Your task to perform on an android device: turn notification dots on Image 0: 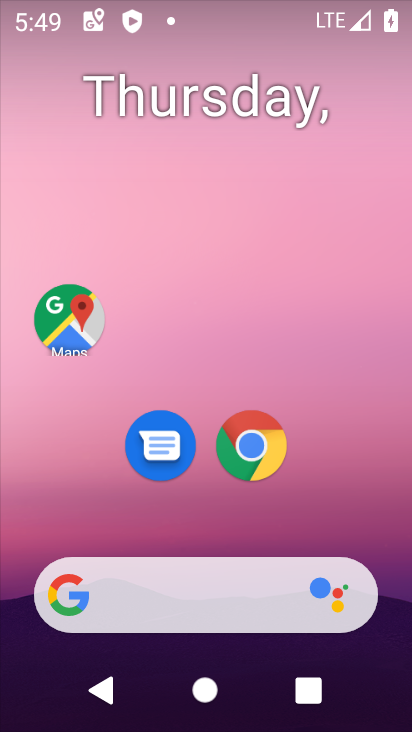
Step 0: drag from (283, 466) to (286, 105)
Your task to perform on an android device: turn notification dots on Image 1: 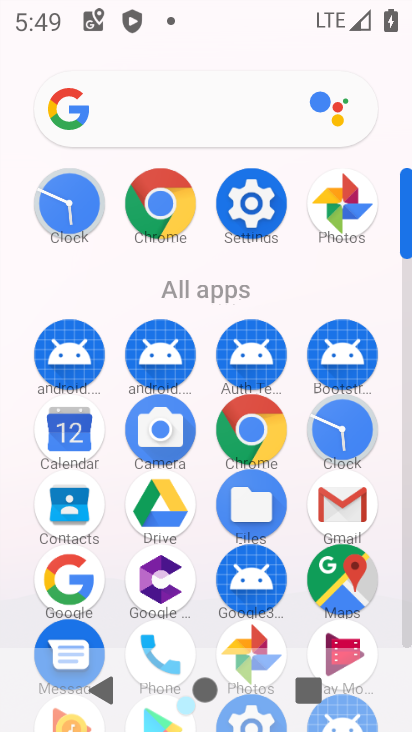
Step 1: click (243, 200)
Your task to perform on an android device: turn notification dots on Image 2: 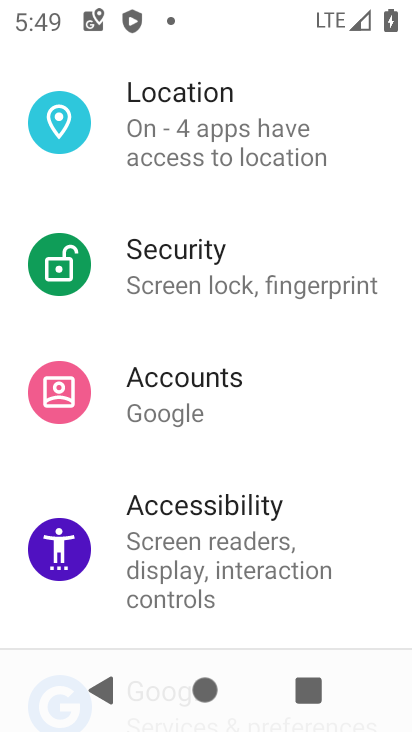
Step 2: drag from (354, 132) to (338, 591)
Your task to perform on an android device: turn notification dots on Image 3: 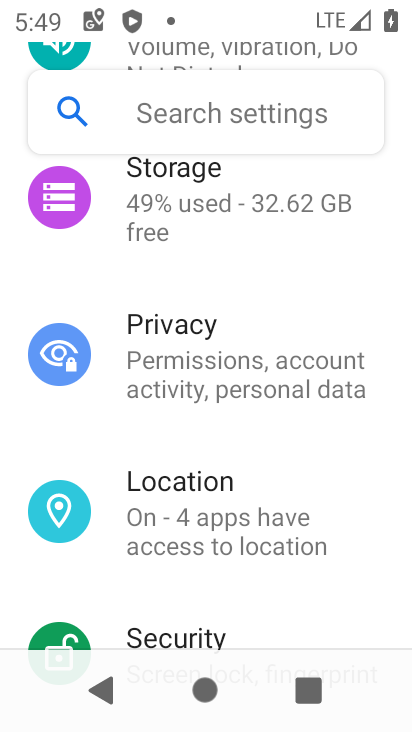
Step 3: drag from (371, 176) to (336, 585)
Your task to perform on an android device: turn notification dots on Image 4: 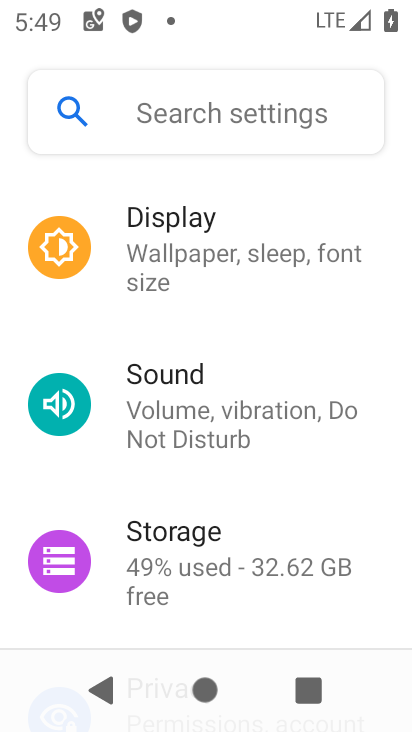
Step 4: drag from (372, 191) to (352, 595)
Your task to perform on an android device: turn notification dots on Image 5: 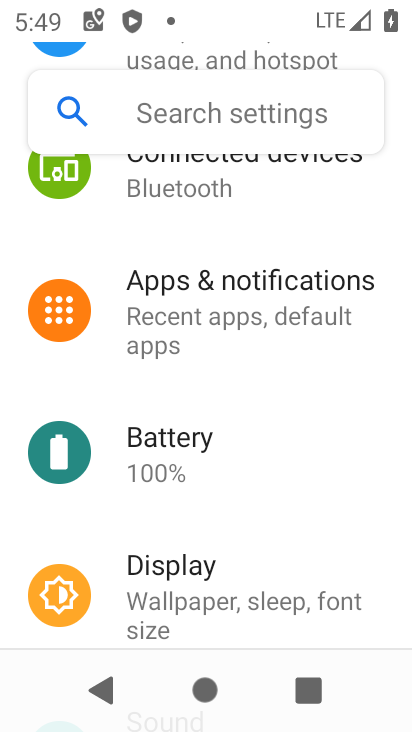
Step 5: click (305, 296)
Your task to perform on an android device: turn notification dots on Image 6: 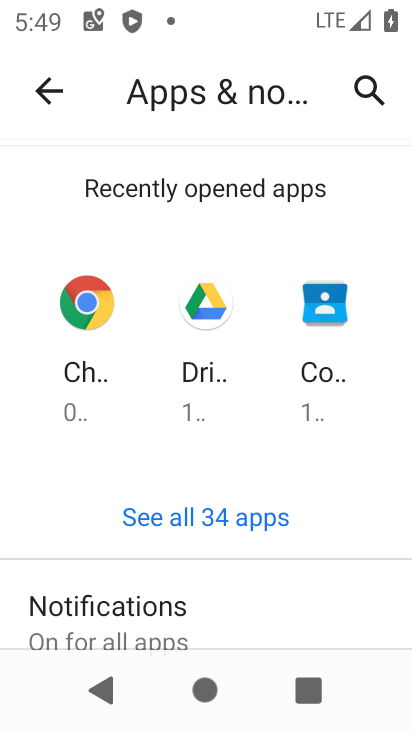
Step 6: click (167, 611)
Your task to perform on an android device: turn notification dots on Image 7: 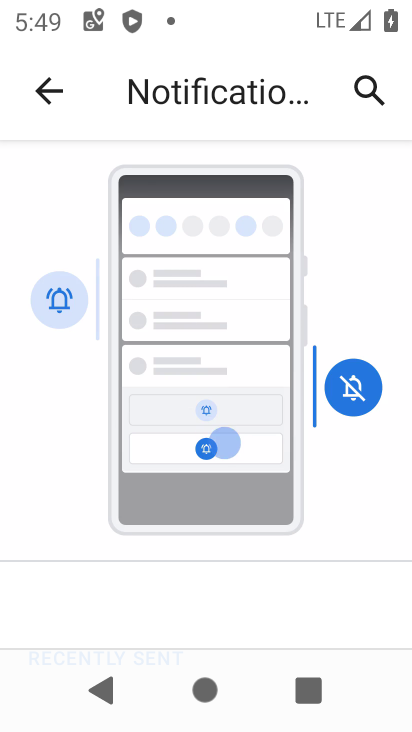
Step 7: drag from (306, 494) to (339, 171)
Your task to perform on an android device: turn notification dots on Image 8: 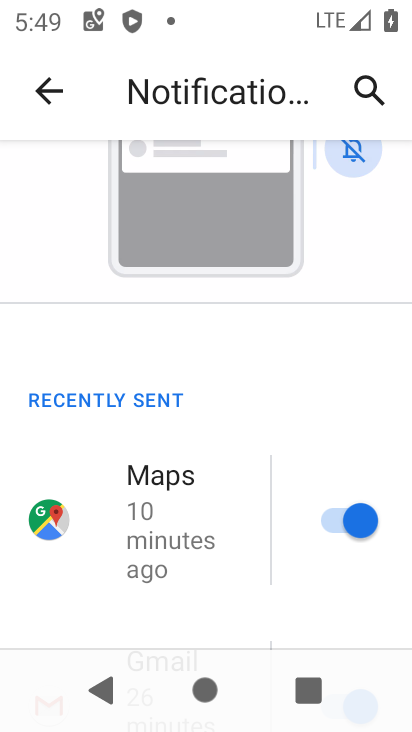
Step 8: drag from (231, 568) to (301, 195)
Your task to perform on an android device: turn notification dots on Image 9: 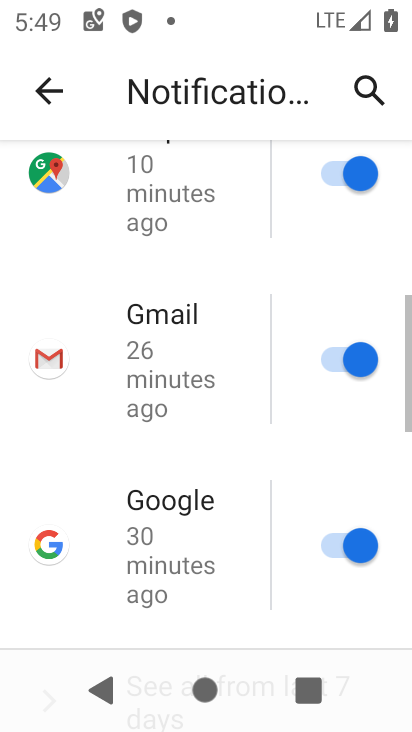
Step 9: drag from (249, 584) to (293, 256)
Your task to perform on an android device: turn notification dots on Image 10: 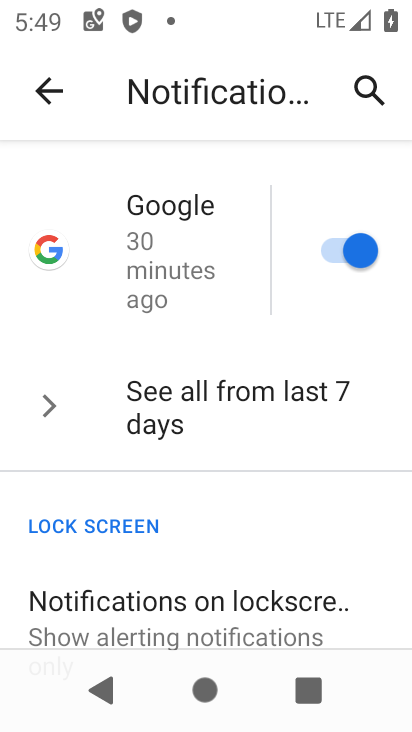
Step 10: drag from (246, 578) to (274, 268)
Your task to perform on an android device: turn notification dots on Image 11: 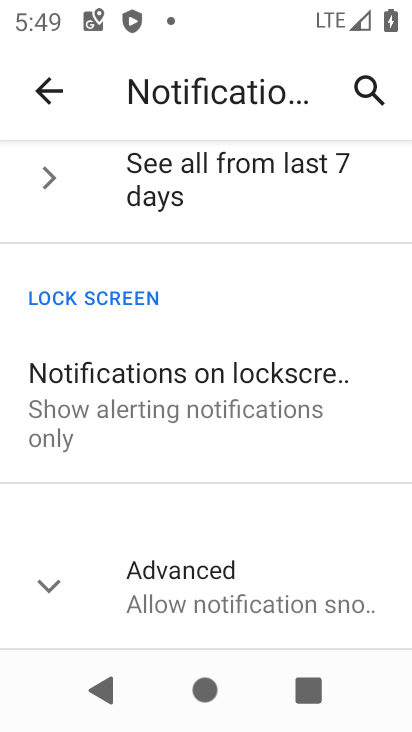
Step 11: click (204, 607)
Your task to perform on an android device: turn notification dots on Image 12: 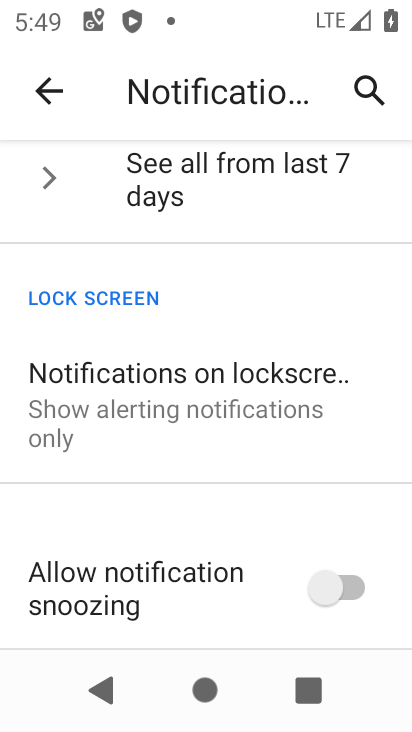
Step 12: task complete